Your task to perform on an android device: What's the weather today? Image 0: 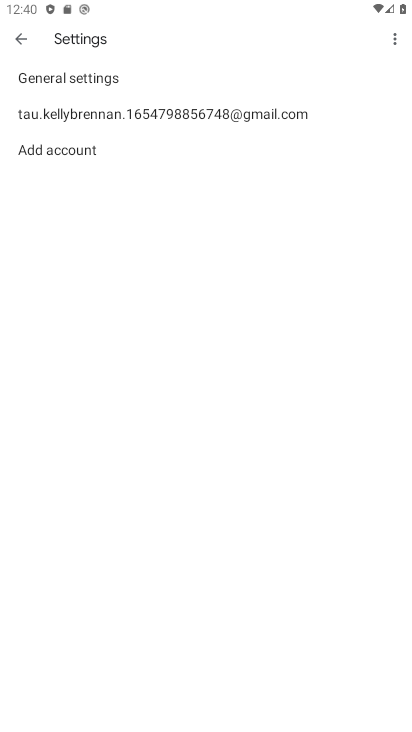
Step 0: press home button
Your task to perform on an android device: What's the weather today? Image 1: 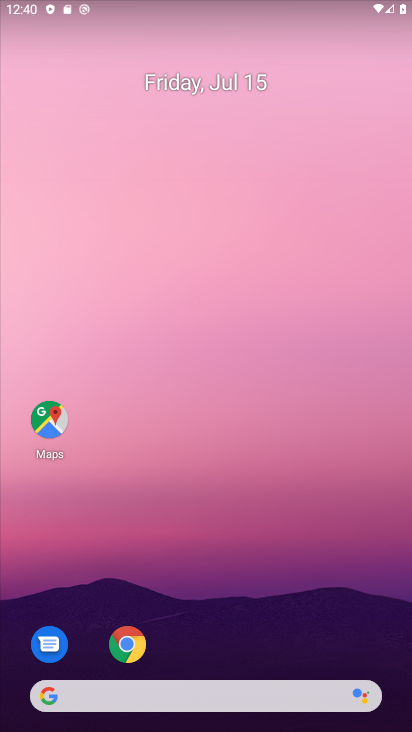
Step 1: drag from (211, 614) to (281, 5)
Your task to perform on an android device: What's the weather today? Image 2: 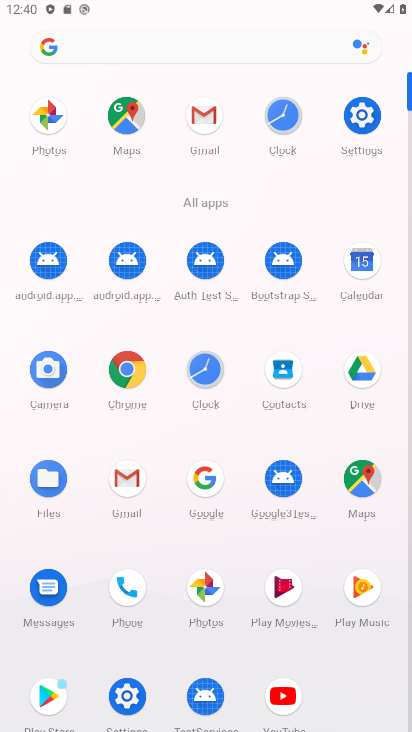
Step 2: click (212, 481)
Your task to perform on an android device: What's the weather today? Image 3: 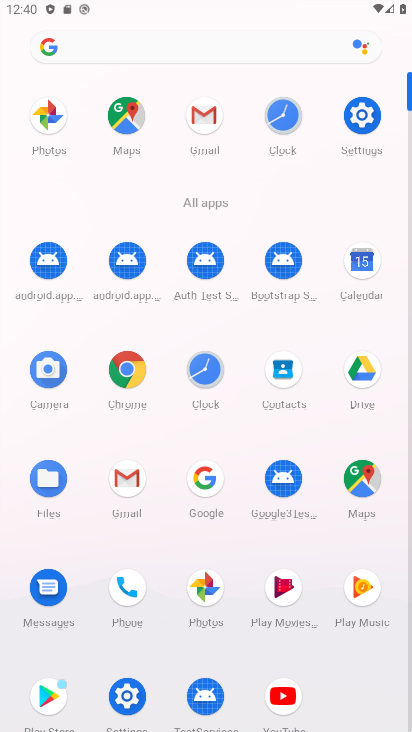
Step 3: click (202, 479)
Your task to perform on an android device: What's the weather today? Image 4: 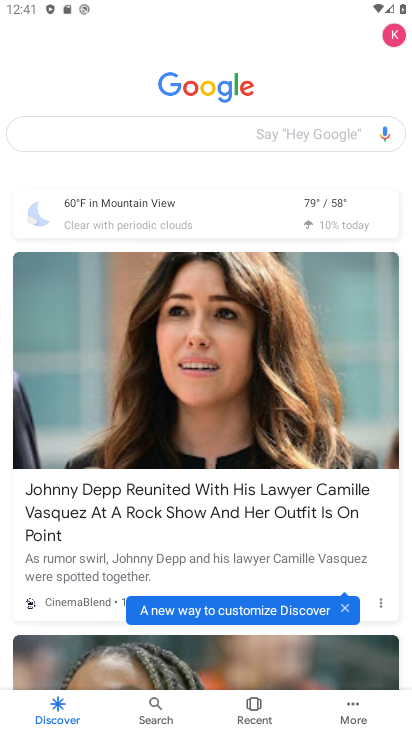
Step 4: click (196, 195)
Your task to perform on an android device: What's the weather today? Image 5: 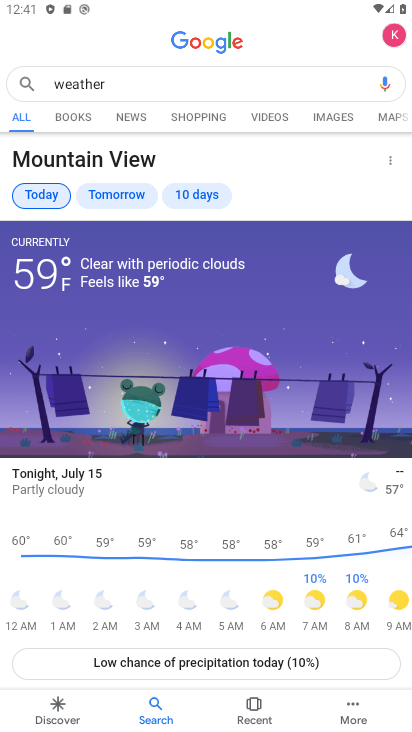
Step 5: task complete